Your task to perform on an android device: set the timer Image 0: 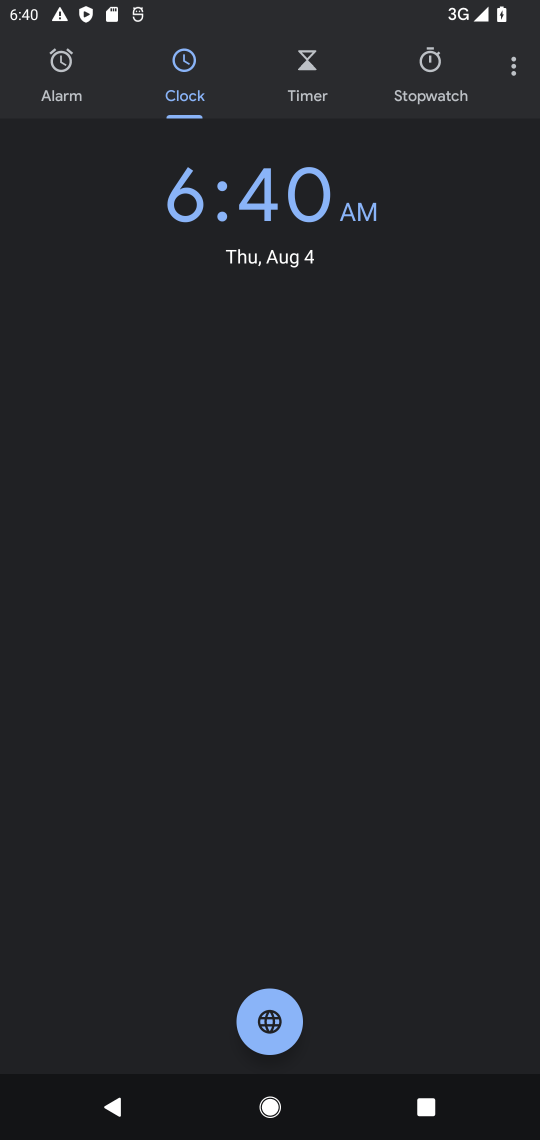
Step 0: click (304, 77)
Your task to perform on an android device: set the timer Image 1: 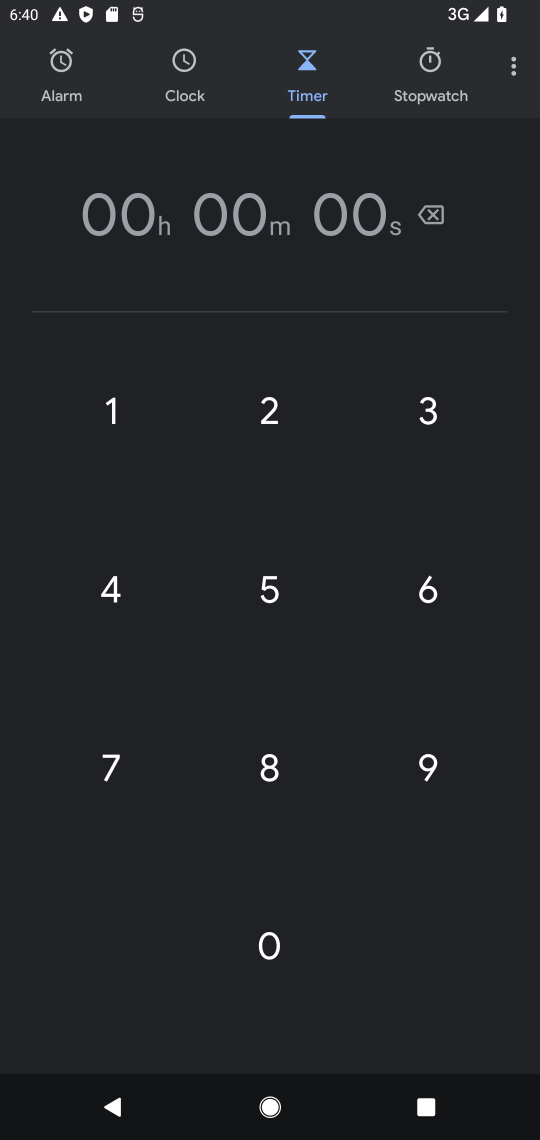
Step 1: type "80000"
Your task to perform on an android device: set the timer Image 2: 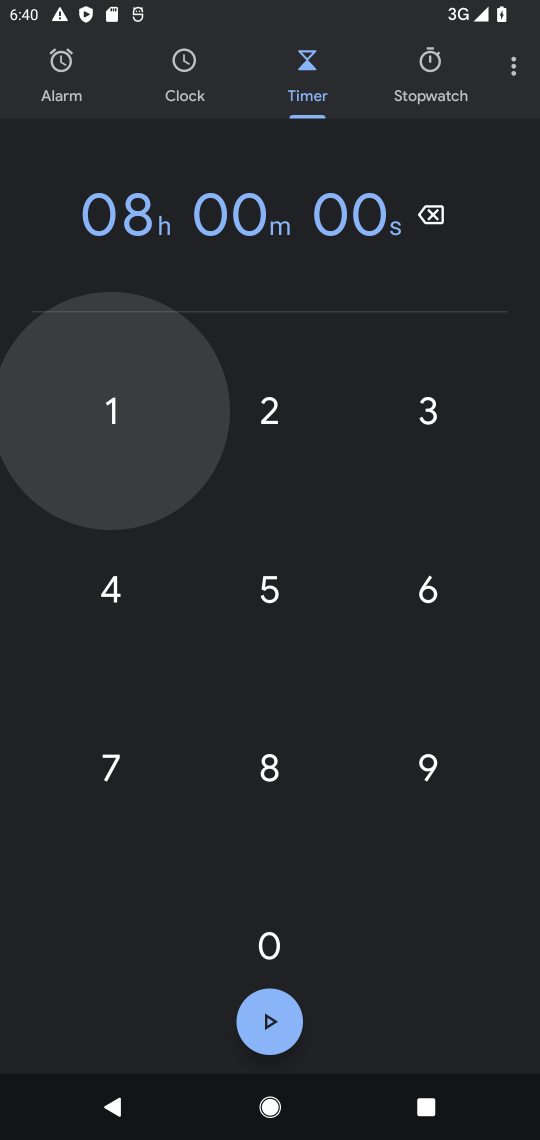
Step 2: click (287, 1016)
Your task to perform on an android device: set the timer Image 3: 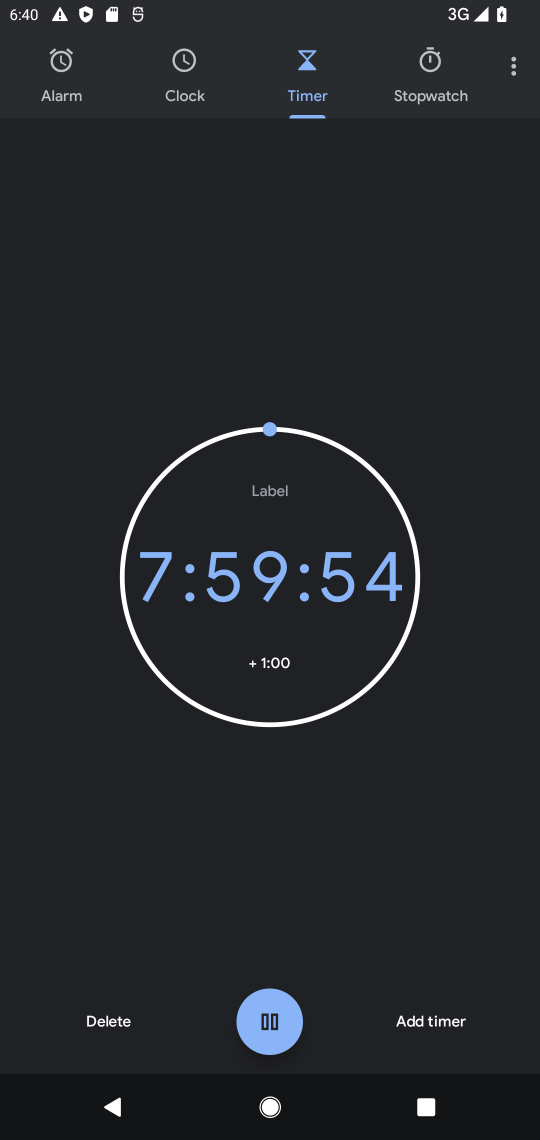
Step 3: task complete